Your task to perform on an android device: Open the web browser Image 0: 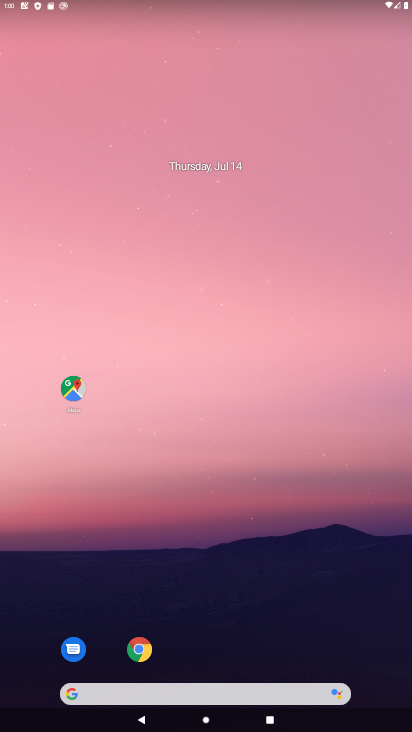
Step 0: drag from (248, 583) to (245, 20)
Your task to perform on an android device: Open the web browser Image 1: 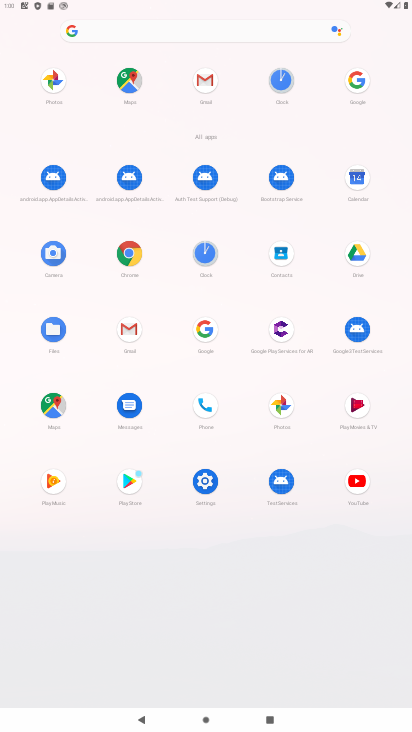
Step 1: click (125, 262)
Your task to perform on an android device: Open the web browser Image 2: 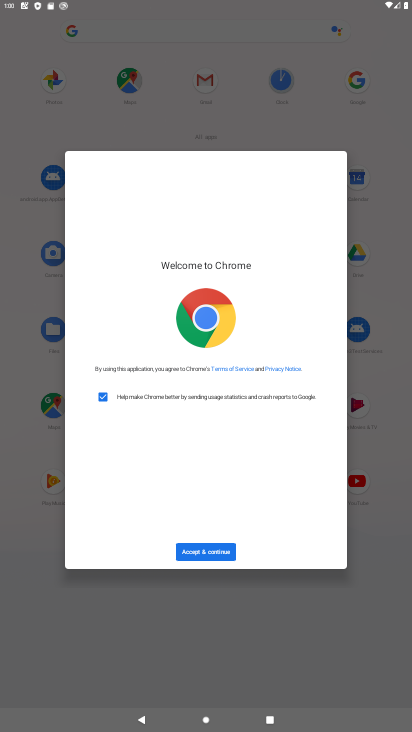
Step 2: click (210, 550)
Your task to perform on an android device: Open the web browser Image 3: 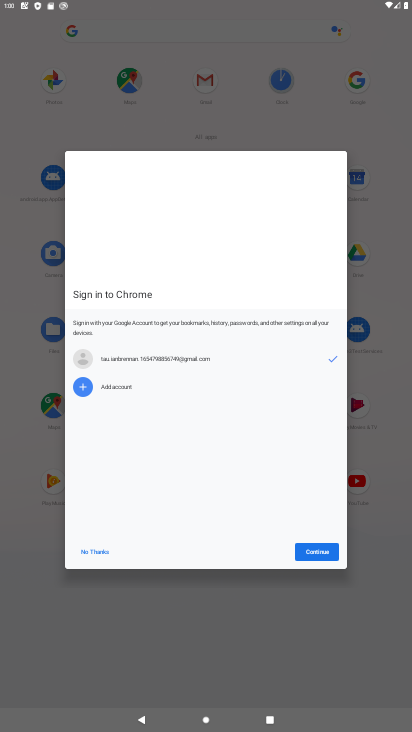
Step 3: click (96, 549)
Your task to perform on an android device: Open the web browser Image 4: 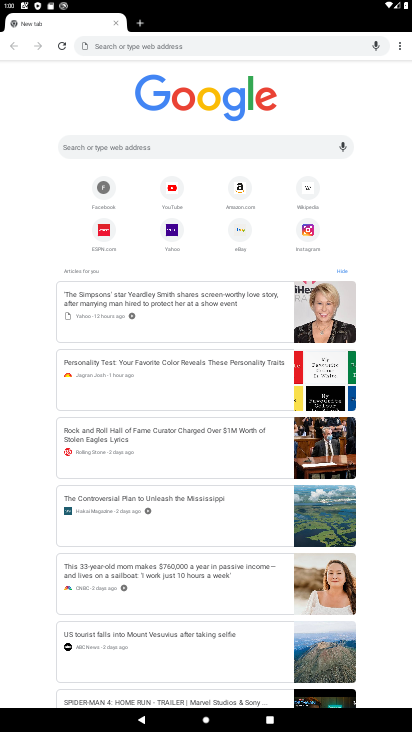
Step 4: task complete